Your task to perform on an android device: Go to wifi settings Image 0: 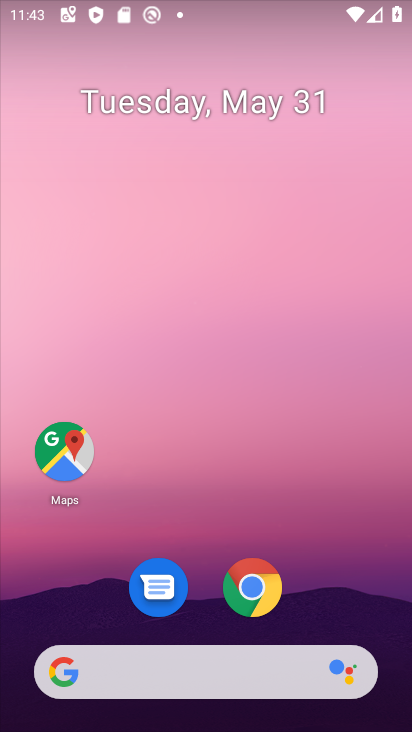
Step 0: drag from (232, 11) to (162, 468)
Your task to perform on an android device: Go to wifi settings Image 1: 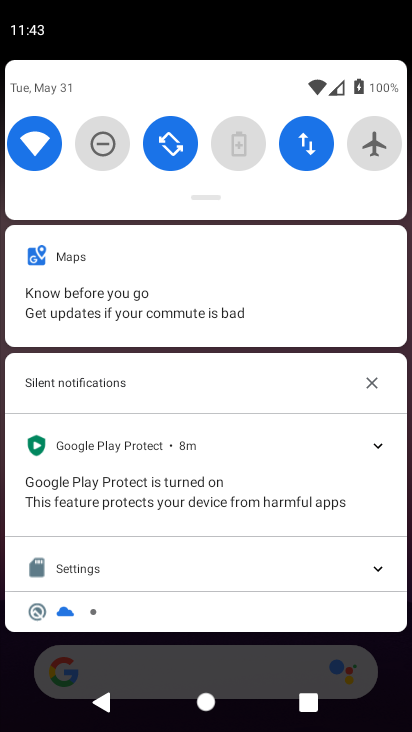
Step 1: click (36, 149)
Your task to perform on an android device: Go to wifi settings Image 2: 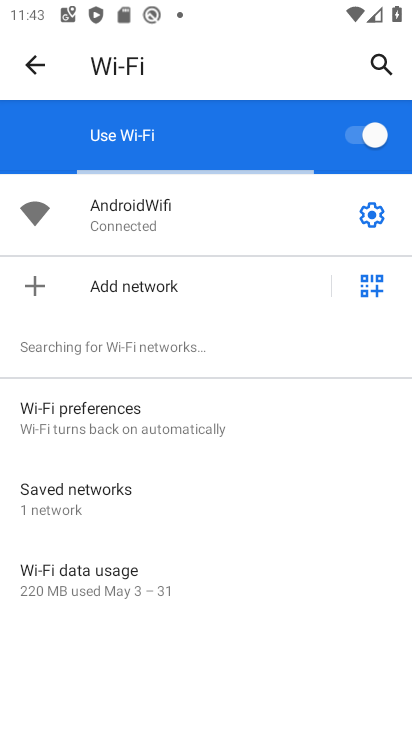
Step 2: task complete